Your task to perform on an android device: toggle airplane mode Image 0: 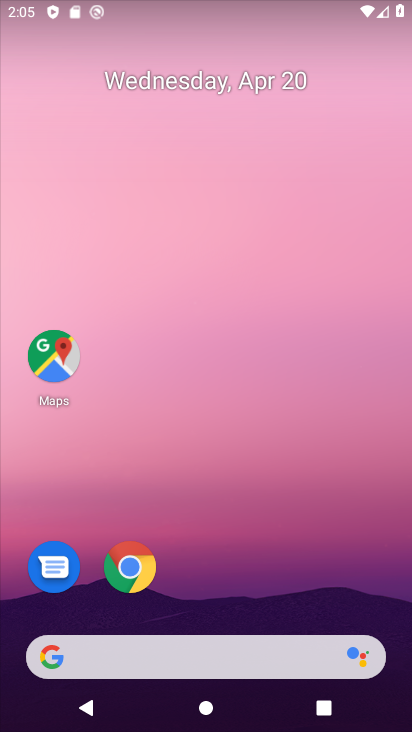
Step 0: drag from (234, 663) to (224, 67)
Your task to perform on an android device: toggle airplane mode Image 1: 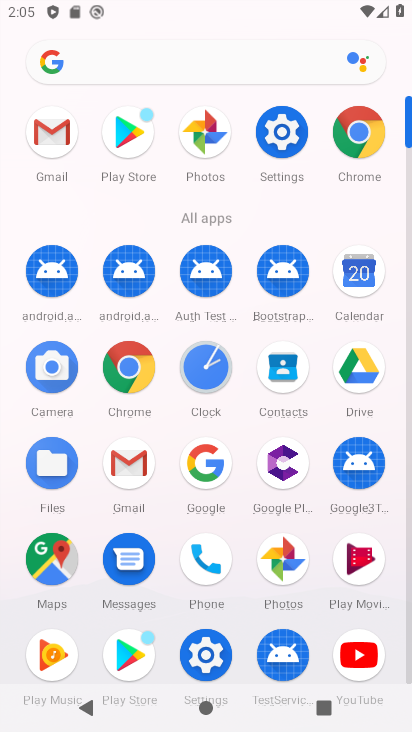
Step 1: click (296, 152)
Your task to perform on an android device: toggle airplane mode Image 2: 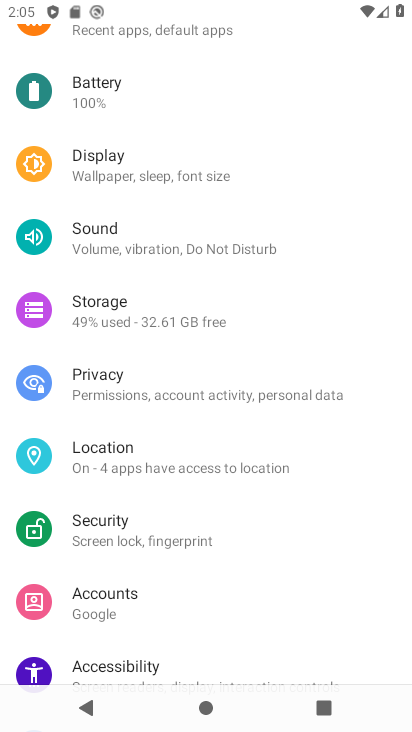
Step 2: drag from (172, 90) to (193, 600)
Your task to perform on an android device: toggle airplane mode Image 3: 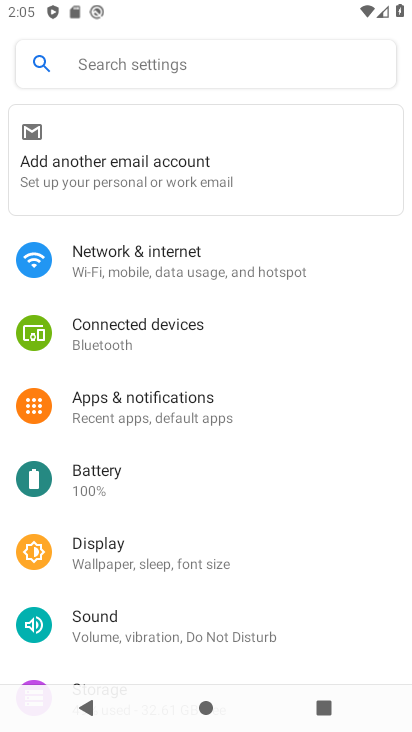
Step 3: click (164, 259)
Your task to perform on an android device: toggle airplane mode Image 4: 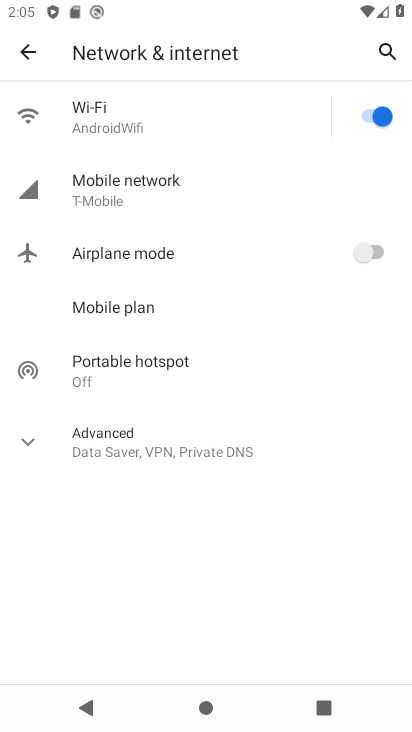
Step 4: click (366, 259)
Your task to perform on an android device: toggle airplane mode Image 5: 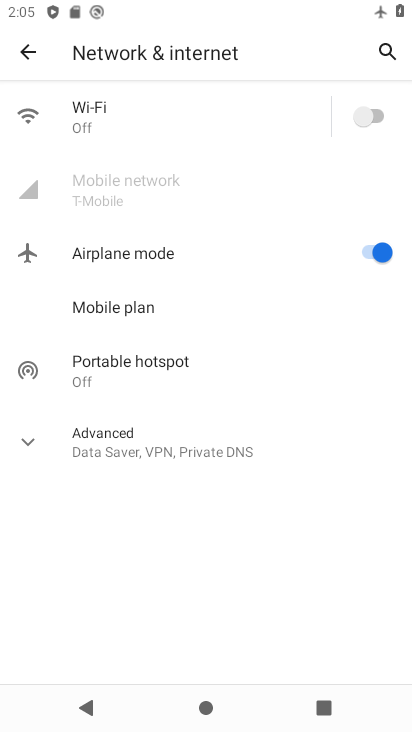
Step 5: task complete